Your task to perform on an android device: toggle sleep mode Image 0: 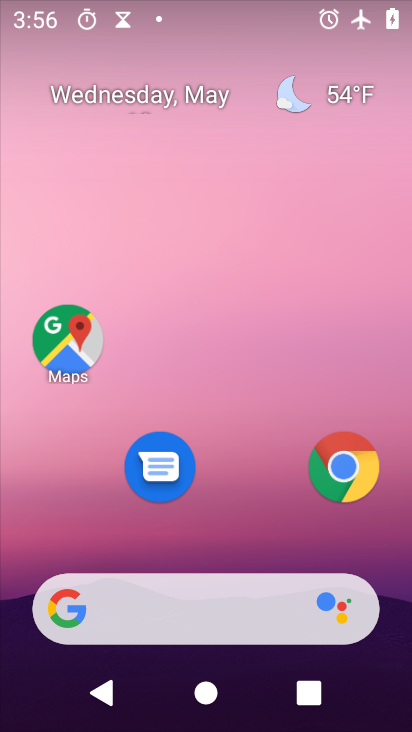
Step 0: drag from (247, 520) to (204, 85)
Your task to perform on an android device: toggle sleep mode Image 1: 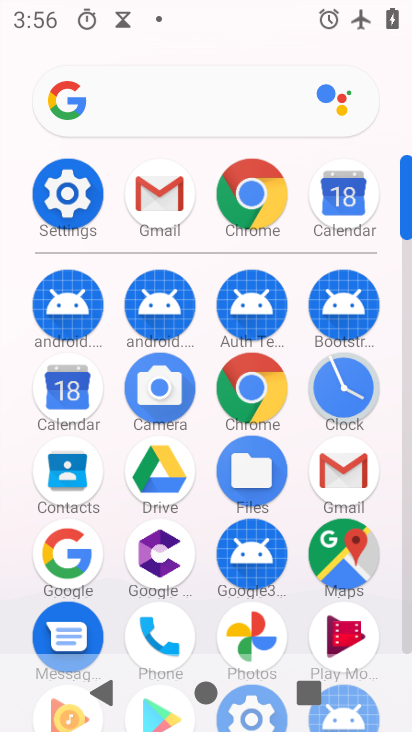
Step 1: click (92, 193)
Your task to perform on an android device: toggle sleep mode Image 2: 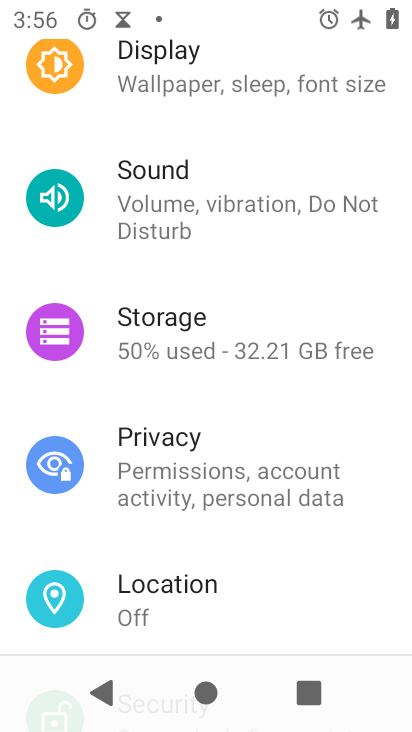
Step 2: drag from (296, 443) to (215, 690)
Your task to perform on an android device: toggle sleep mode Image 3: 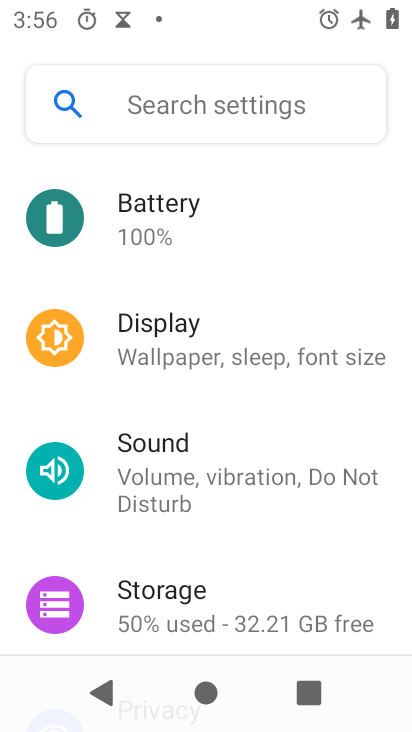
Step 3: click (206, 361)
Your task to perform on an android device: toggle sleep mode Image 4: 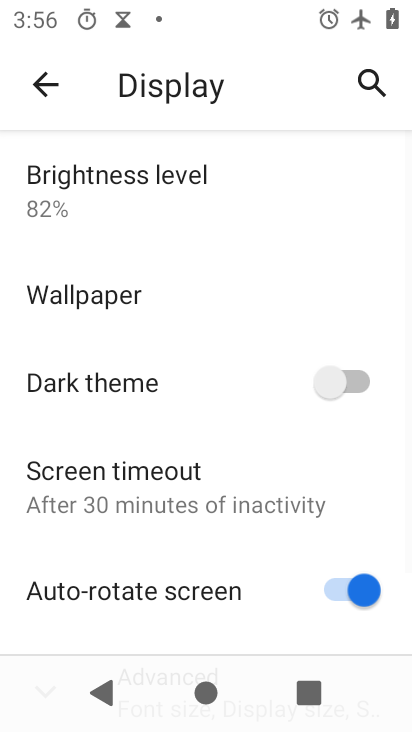
Step 4: drag from (260, 558) to (197, 190)
Your task to perform on an android device: toggle sleep mode Image 5: 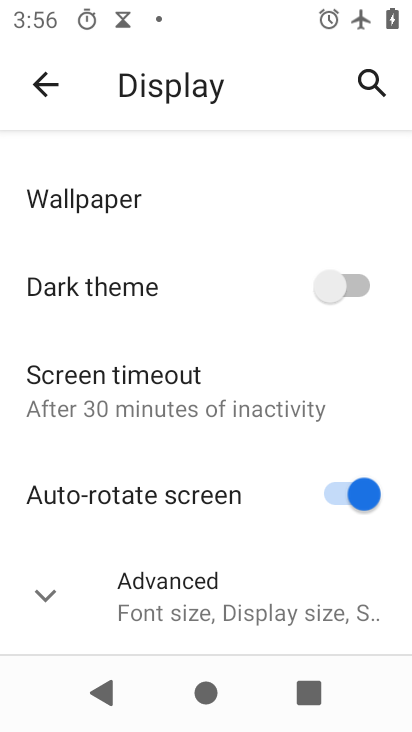
Step 5: click (249, 601)
Your task to perform on an android device: toggle sleep mode Image 6: 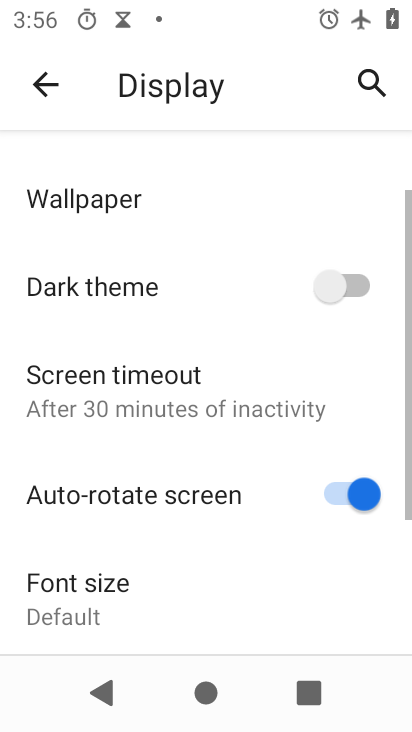
Step 6: task complete